Your task to perform on an android device: Go to battery settings Image 0: 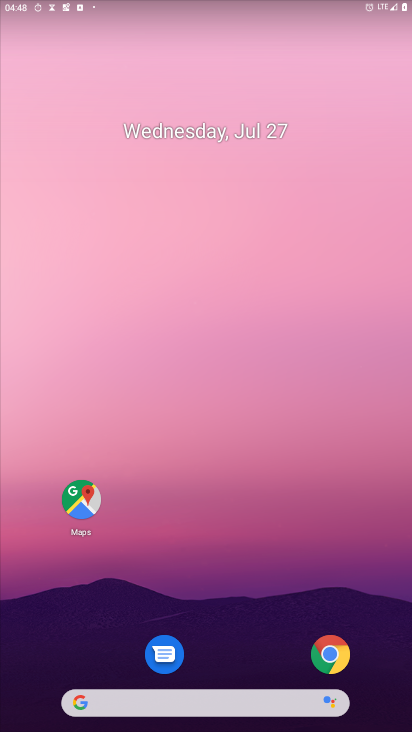
Step 0: drag from (124, 706) to (197, 30)
Your task to perform on an android device: Go to battery settings Image 1: 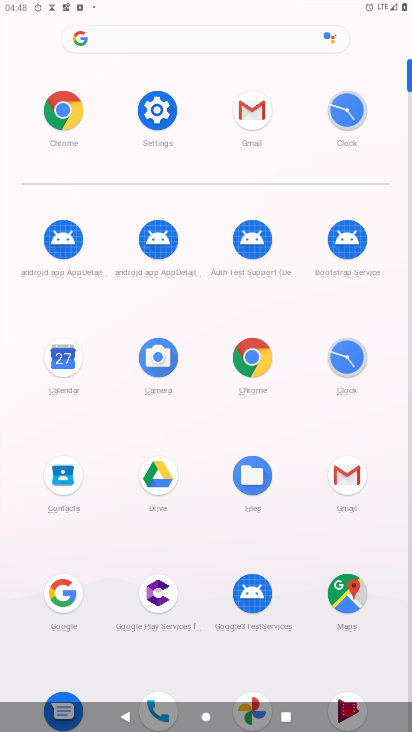
Step 1: click (148, 115)
Your task to perform on an android device: Go to battery settings Image 2: 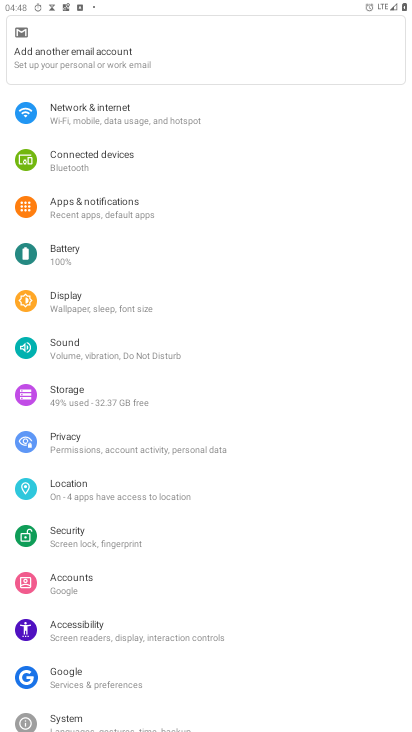
Step 2: click (73, 253)
Your task to perform on an android device: Go to battery settings Image 3: 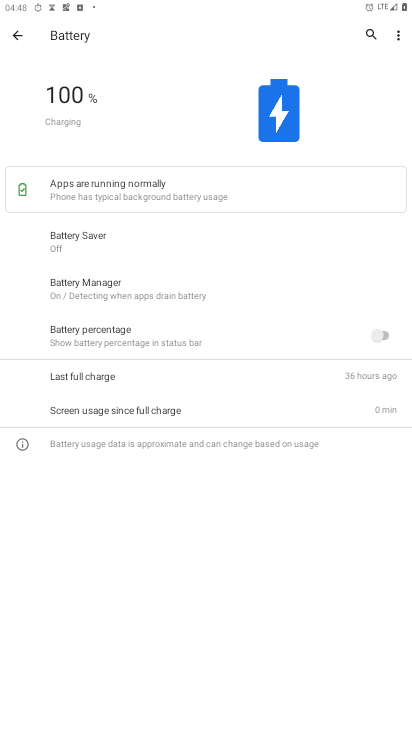
Step 3: task complete